Your task to perform on an android device: stop showing notifications on the lock screen Image 0: 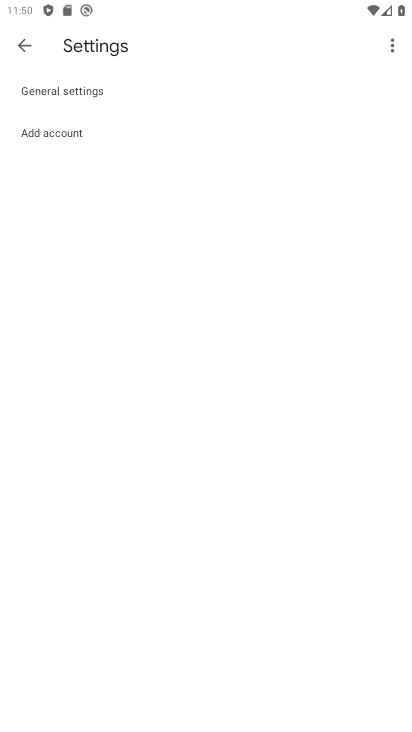
Step 0: drag from (214, 655) to (213, 297)
Your task to perform on an android device: stop showing notifications on the lock screen Image 1: 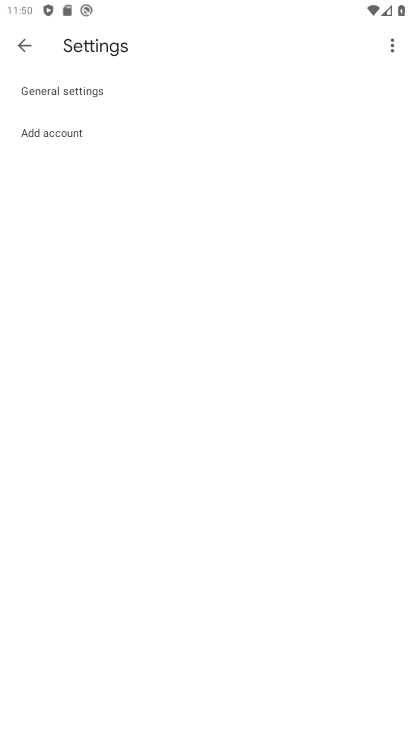
Step 1: press home button
Your task to perform on an android device: stop showing notifications on the lock screen Image 2: 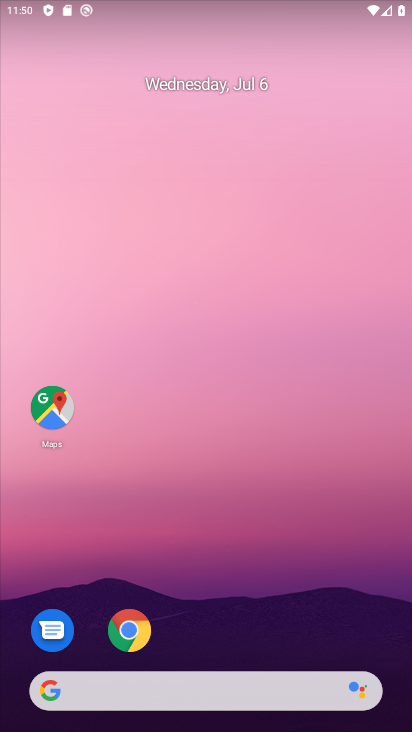
Step 2: drag from (224, 640) to (212, 149)
Your task to perform on an android device: stop showing notifications on the lock screen Image 3: 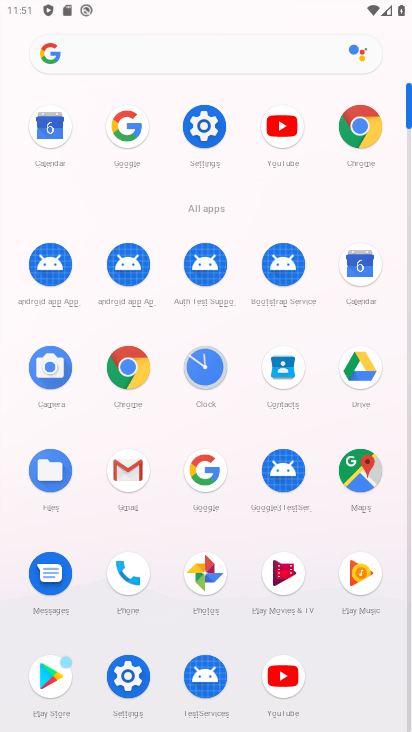
Step 3: click (203, 139)
Your task to perform on an android device: stop showing notifications on the lock screen Image 4: 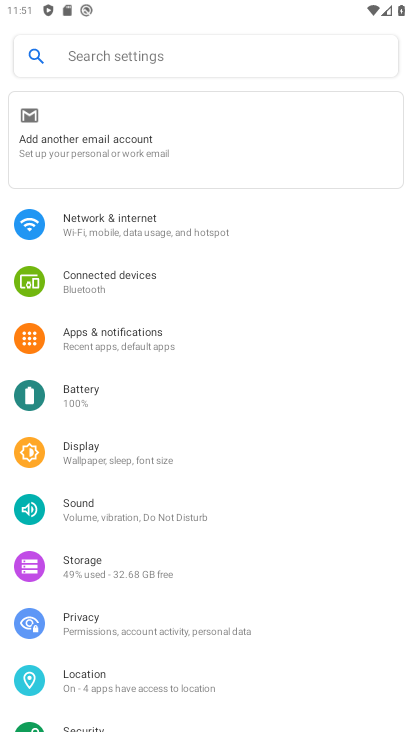
Step 4: drag from (143, 647) to (128, 224)
Your task to perform on an android device: stop showing notifications on the lock screen Image 5: 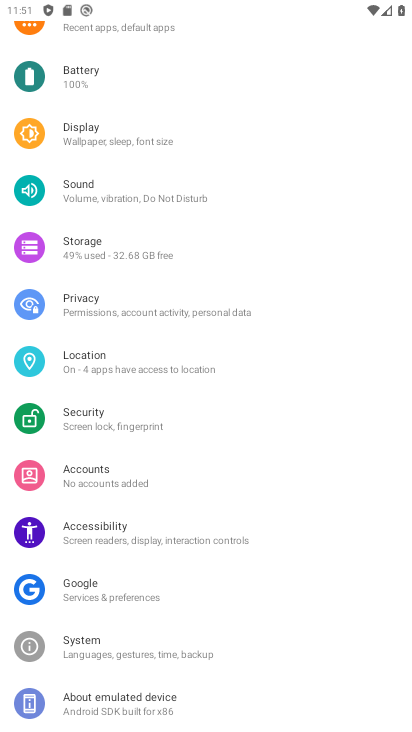
Step 5: drag from (123, 620) to (147, 377)
Your task to perform on an android device: stop showing notifications on the lock screen Image 6: 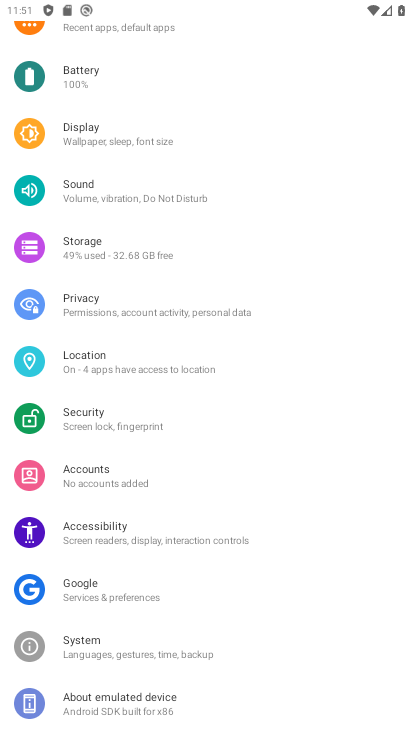
Step 6: drag from (165, 250) to (165, 418)
Your task to perform on an android device: stop showing notifications on the lock screen Image 7: 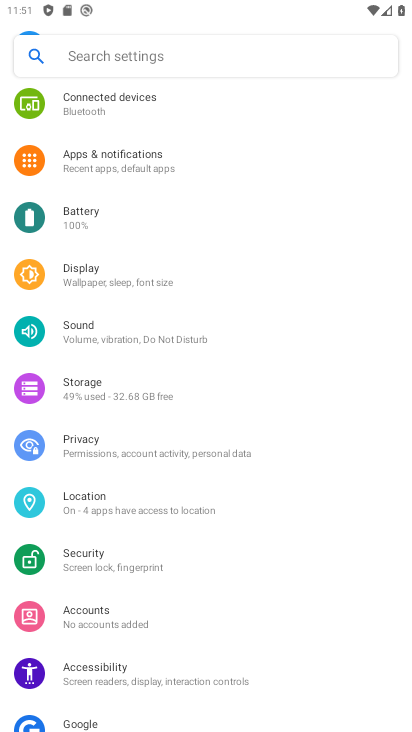
Step 7: click (123, 145)
Your task to perform on an android device: stop showing notifications on the lock screen Image 8: 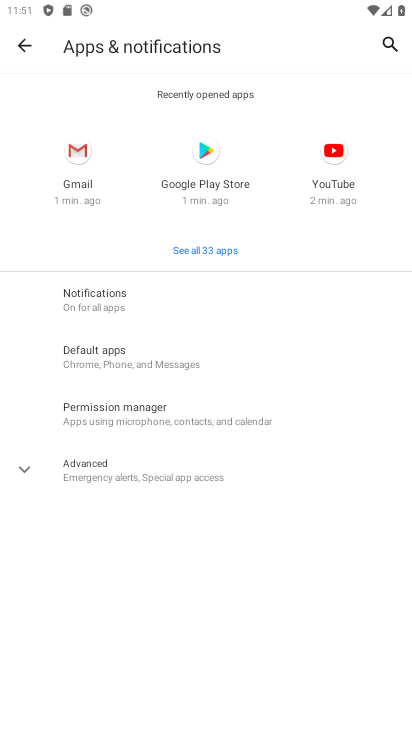
Step 8: click (114, 303)
Your task to perform on an android device: stop showing notifications on the lock screen Image 9: 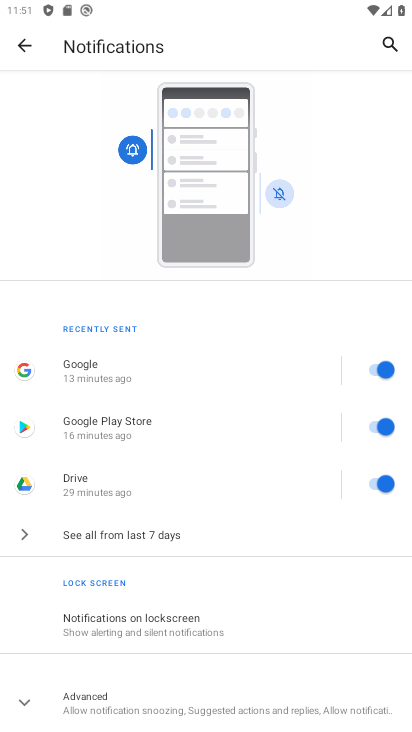
Step 9: click (207, 627)
Your task to perform on an android device: stop showing notifications on the lock screen Image 10: 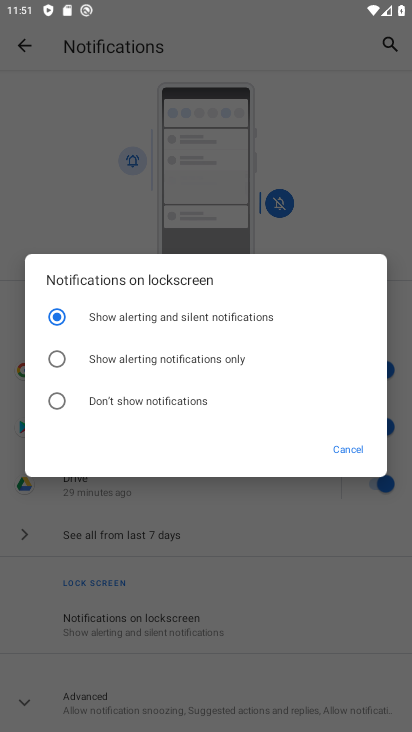
Step 10: click (49, 404)
Your task to perform on an android device: stop showing notifications on the lock screen Image 11: 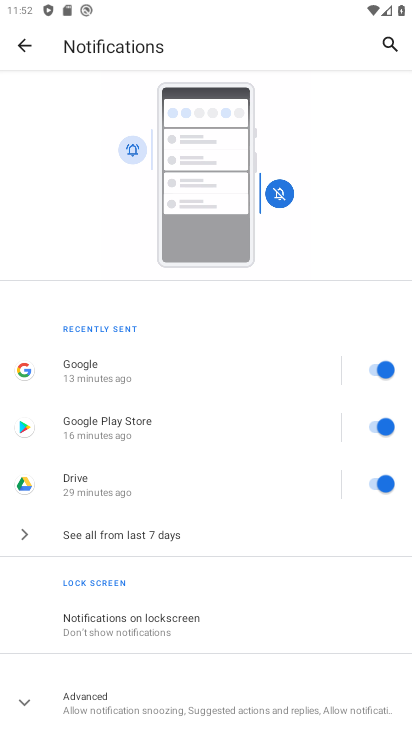
Step 11: task complete